Your task to perform on an android device: change notifications settings Image 0: 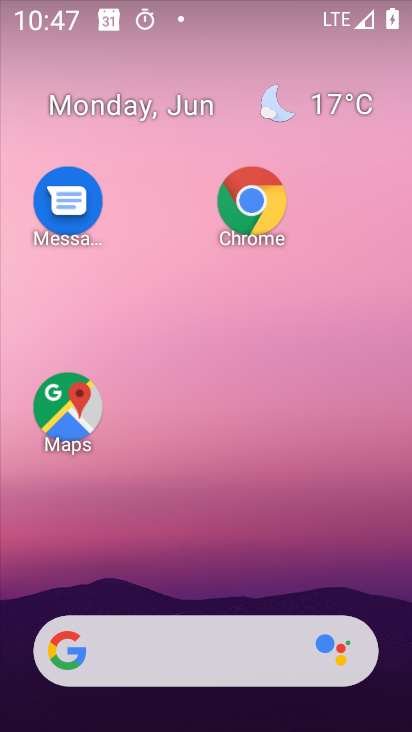
Step 0: drag from (206, 599) to (154, 126)
Your task to perform on an android device: change notifications settings Image 1: 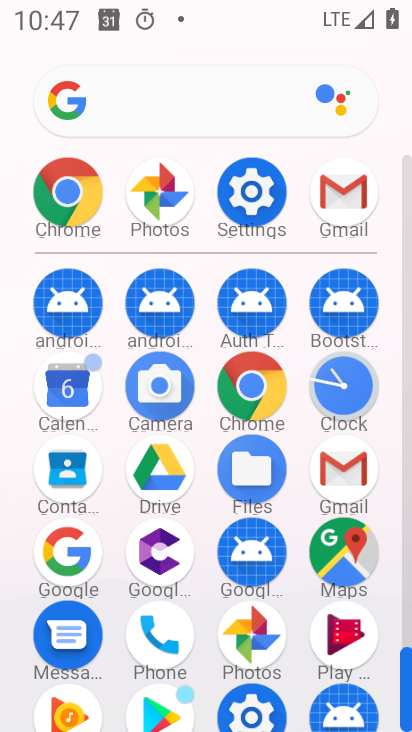
Step 1: click (263, 188)
Your task to perform on an android device: change notifications settings Image 2: 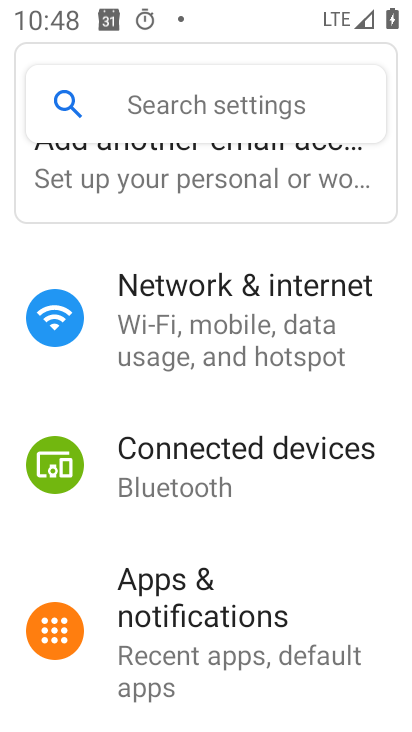
Step 2: click (196, 584)
Your task to perform on an android device: change notifications settings Image 3: 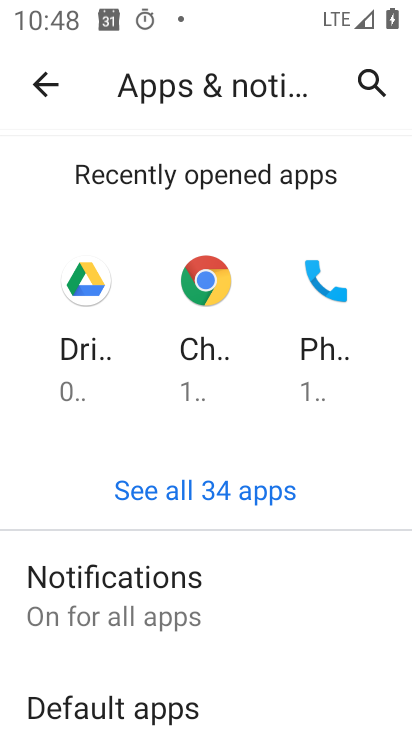
Step 3: click (196, 584)
Your task to perform on an android device: change notifications settings Image 4: 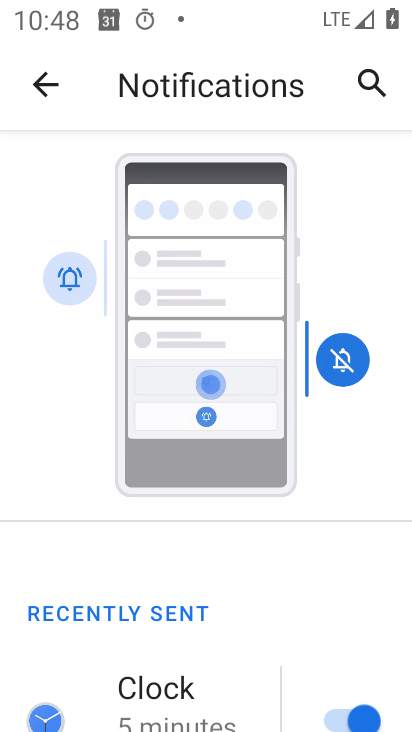
Step 4: drag from (197, 532) to (70, 29)
Your task to perform on an android device: change notifications settings Image 5: 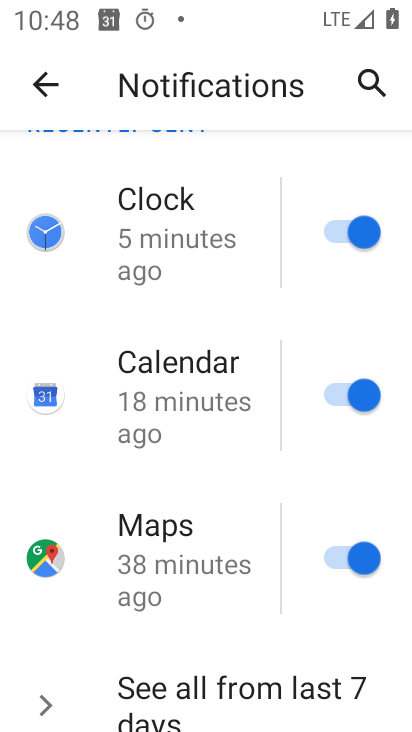
Step 5: click (167, 707)
Your task to perform on an android device: change notifications settings Image 6: 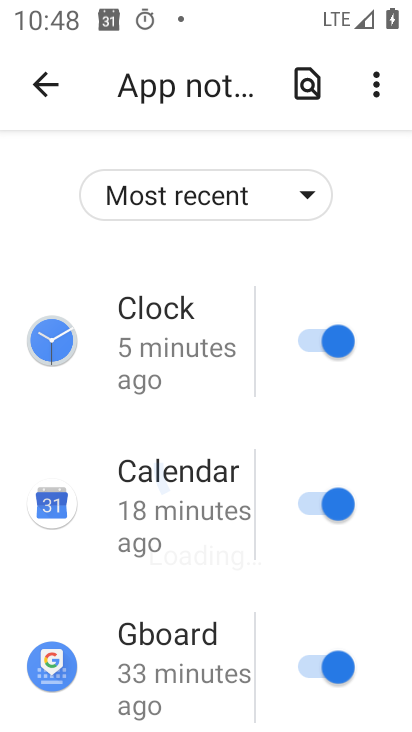
Step 6: click (204, 202)
Your task to perform on an android device: change notifications settings Image 7: 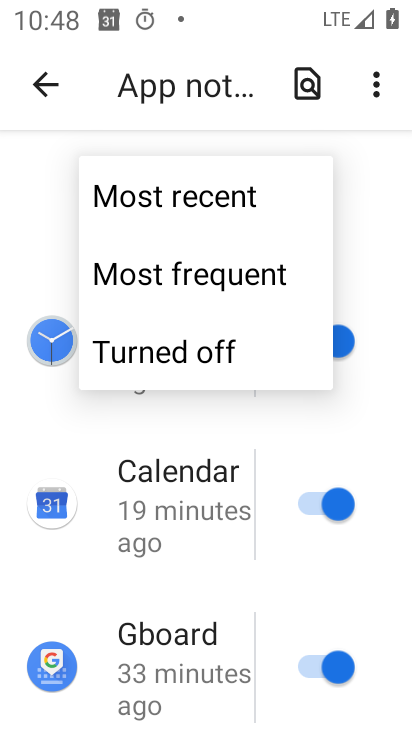
Step 7: click (150, 337)
Your task to perform on an android device: change notifications settings Image 8: 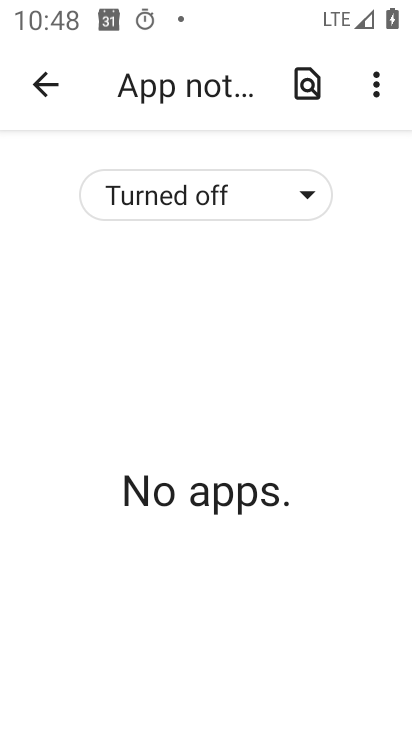
Step 8: task complete